Your task to perform on an android device: Turn off the flashlight Image 0: 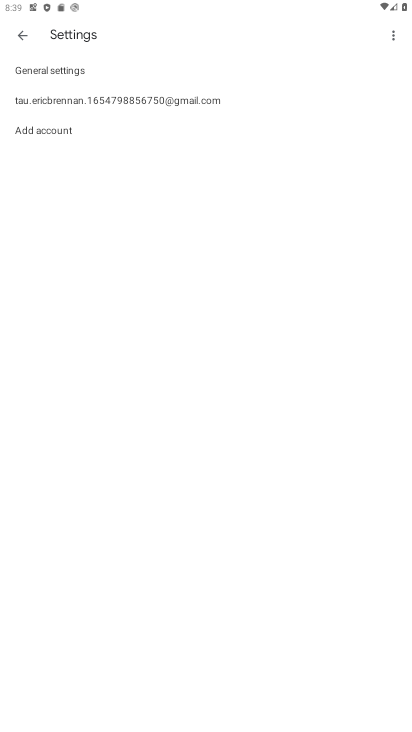
Step 0: press home button
Your task to perform on an android device: Turn off the flashlight Image 1: 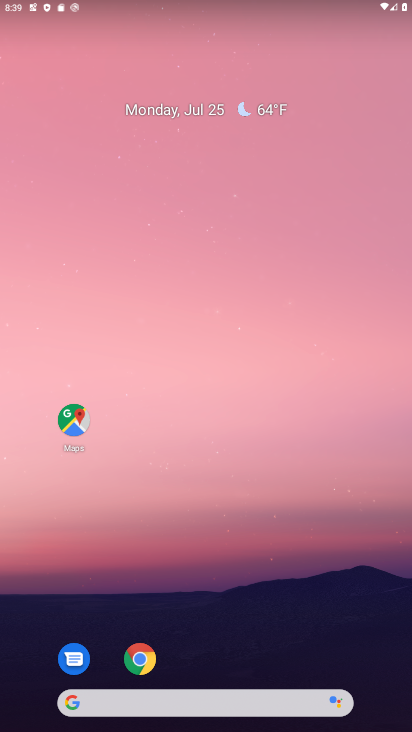
Step 1: drag from (211, 5) to (216, 385)
Your task to perform on an android device: Turn off the flashlight Image 2: 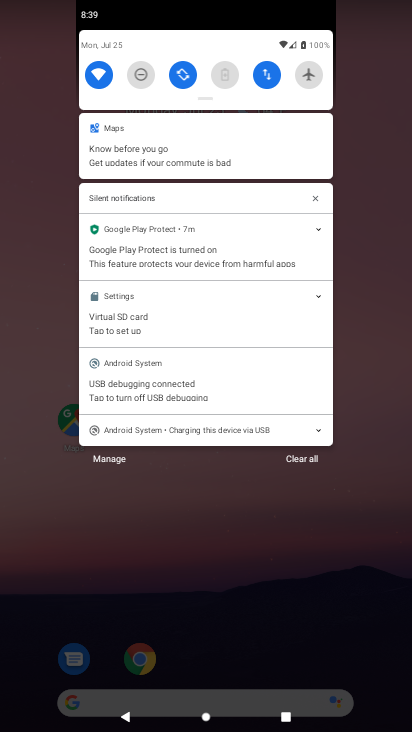
Step 2: drag from (206, 39) to (226, 338)
Your task to perform on an android device: Turn off the flashlight Image 3: 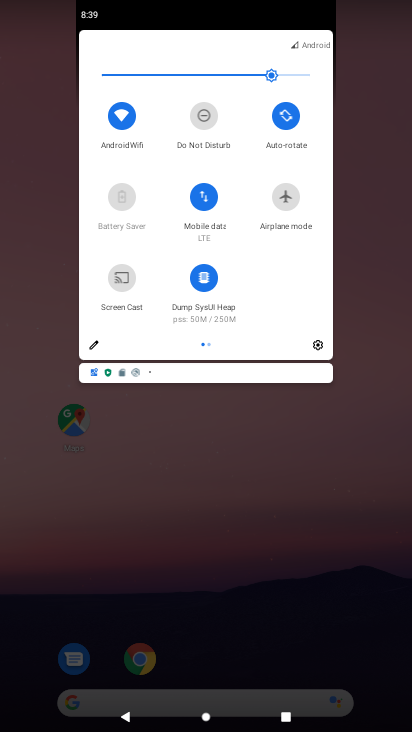
Step 3: click (87, 343)
Your task to perform on an android device: Turn off the flashlight Image 4: 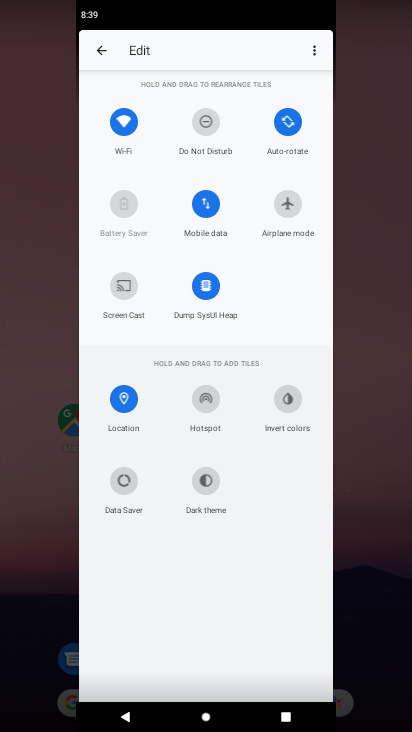
Step 4: task complete